Your task to perform on an android device: Go to Google maps Image 0: 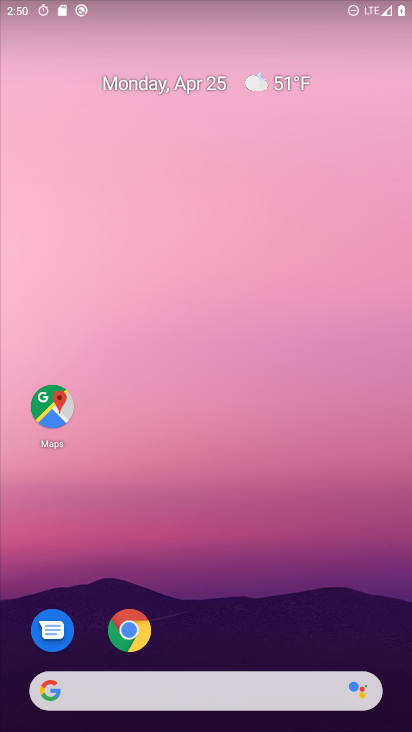
Step 0: drag from (199, 656) to (253, 328)
Your task to perform on an android device: Go to Google maps Image 1: 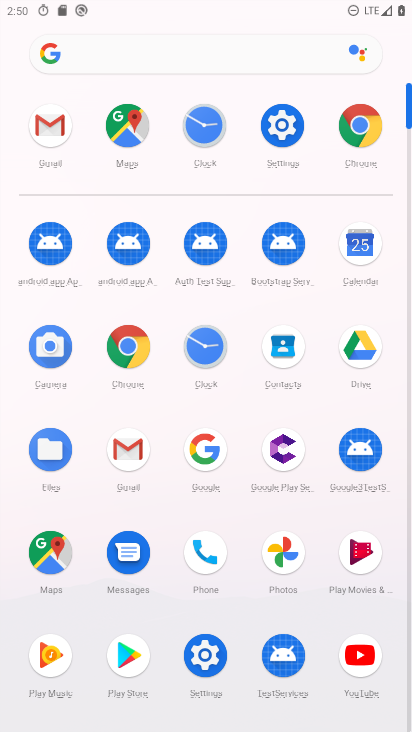
Step 1: click (47, 555)
Your task to perform on an android device: Go to Google maps Image 2: 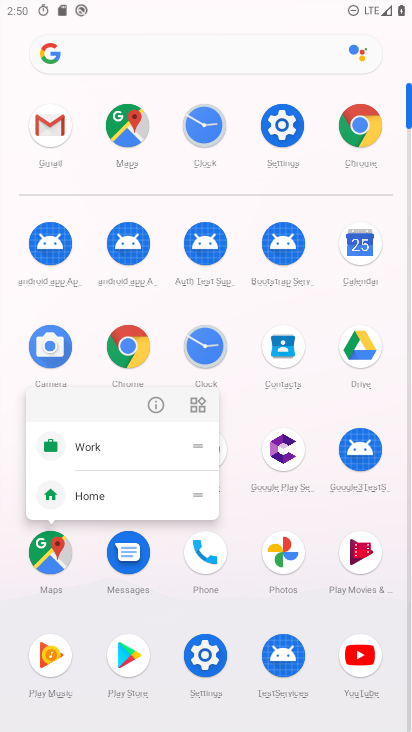
Step 2: click (150, 406)
Your task to perform on an android device: Go to Google maps Image 3: 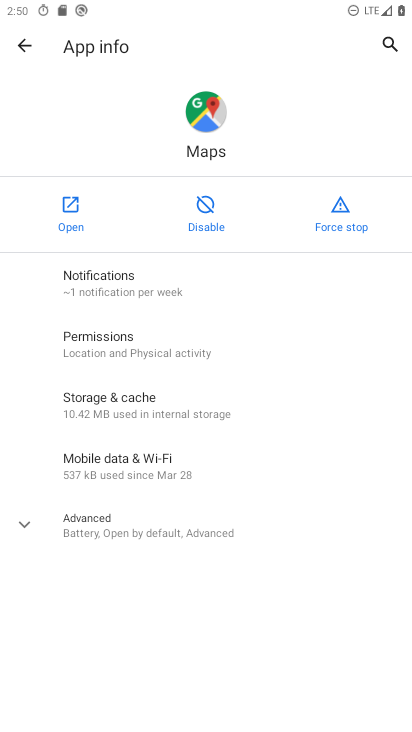
Step 3: click (69, 214)
Your task to perform on an android device: Go to Google maps Image 4: 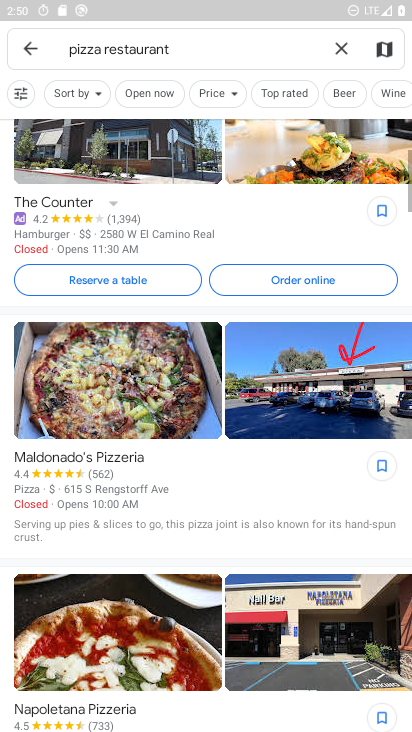
Step 4: task complete